Your task to perform on an android device: open a new tab in the chrome app Image 0: 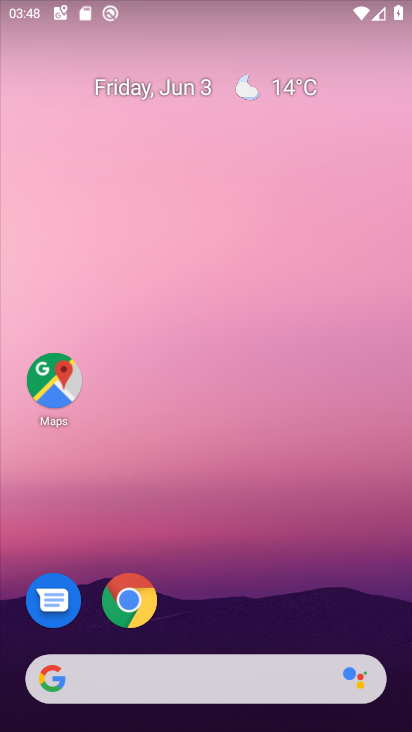
Step 0: click (132, 604)
Your task to perform on an android device: open a new tab in the chrome app Image 1: 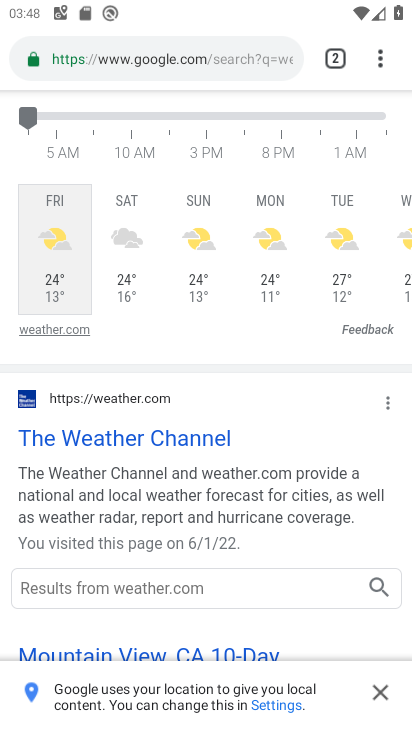
Step 1: task complete